Your task to perform on an android device: toggle translation in the chrome app Image 0: 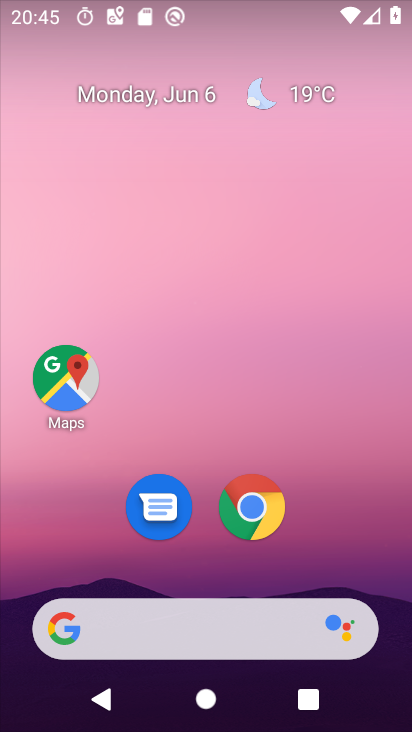
Step 0: press home button
Your task to perform on an android device: toggle translation in the chrome app Image 1: 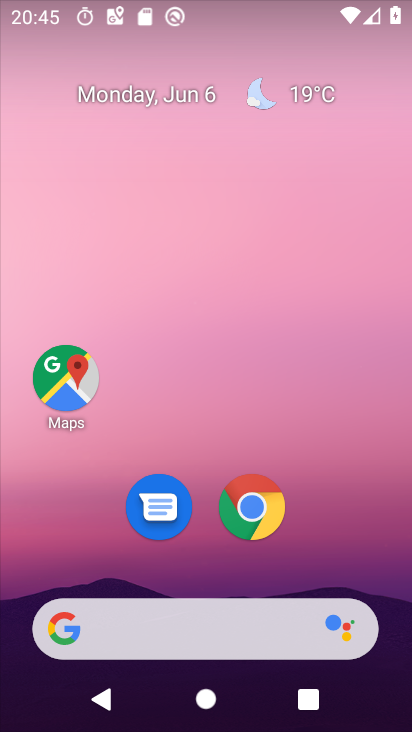
Step 1: click (230, 515)
Your task to perform on an android device: toggle translation in the chrome app Image 2: 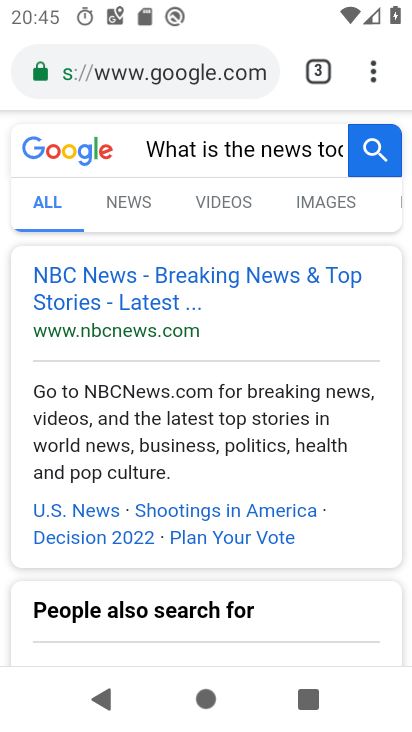
Step 2: drag from (370, 68) to (162, 502)
Your task to perform on an android device: toggle translation in the chrome app Image 3: 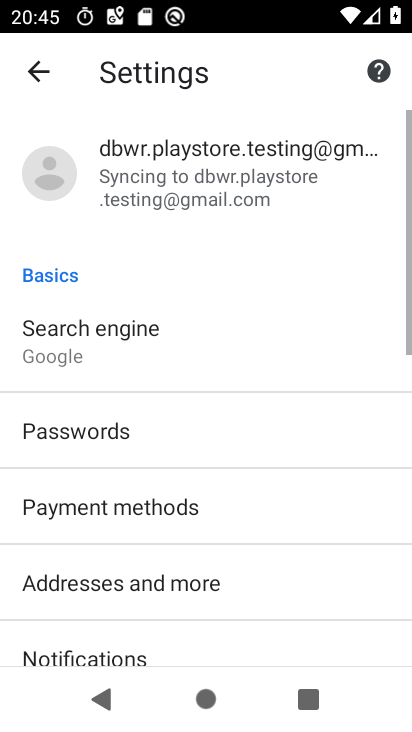
Step 3: drag from (223, 538) to (243, 51)
Your task to perform on an android device: toggle translation in the chrome app Image 4: 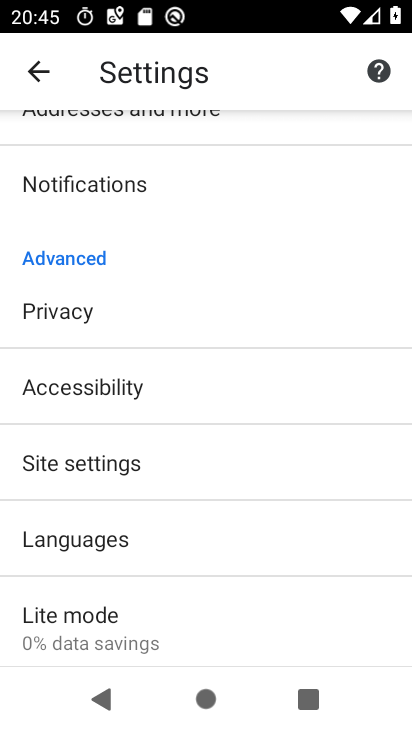
Step 4: click (136, 534)
Your task to perform on an android device: toggle translation in the chrome app Image 5: 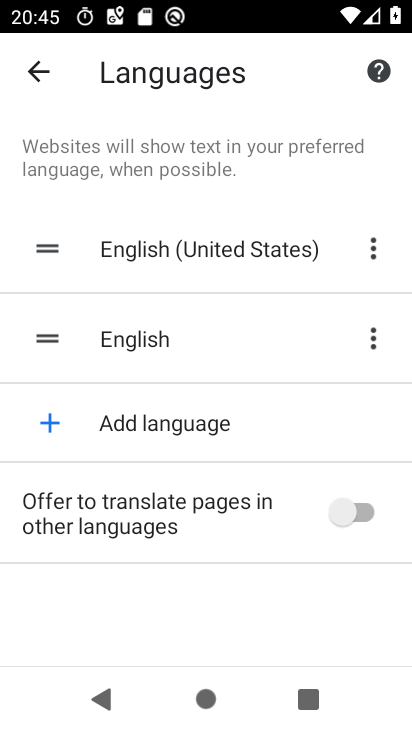
Step 5: drag from (186, 534) to (190, 485)
Your task to perform on an android device: toggle translation in the chrome app Image 6: 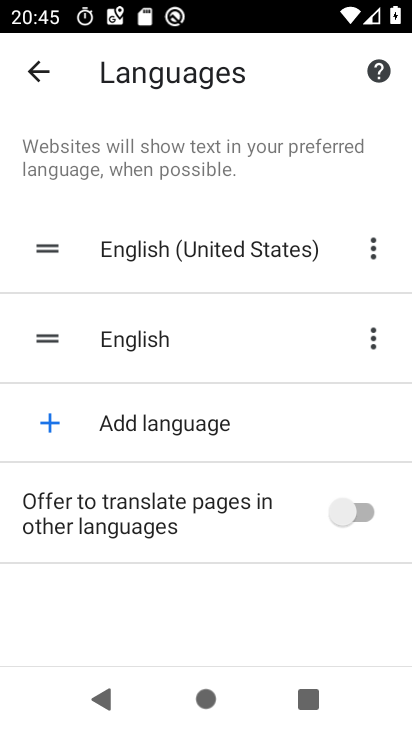
Step 6: click (190, 485)
Your task to perform on an android device: toggle translation in the chrome app Image 7: 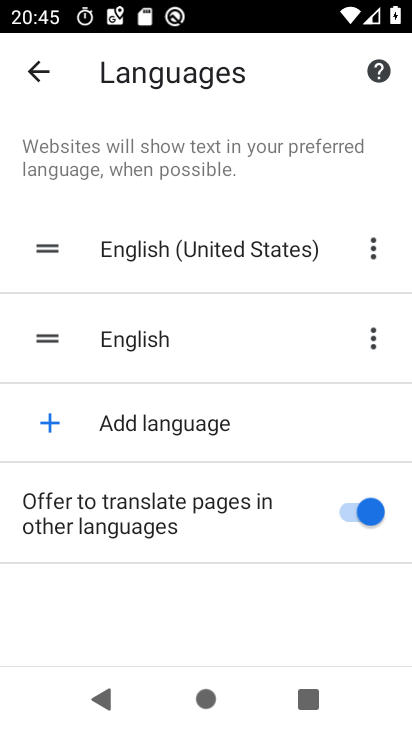
Step 7: task complete